Your task to perform on an android device: change the clock style Image 0: 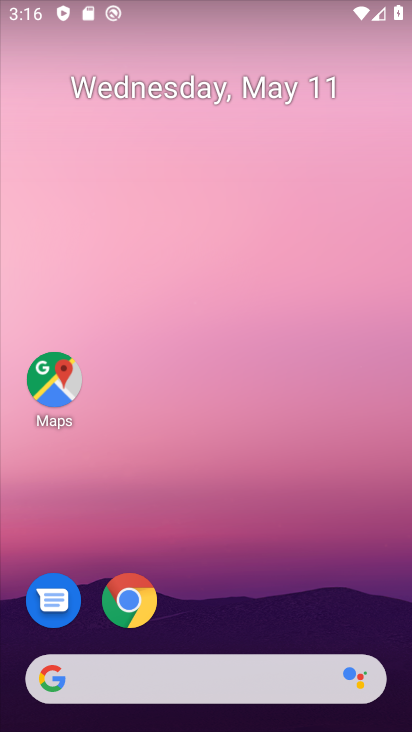
Step 0: drag from (325, 617) to (376, 3)
Your task to perform on an android device: change the clock style Image 1: 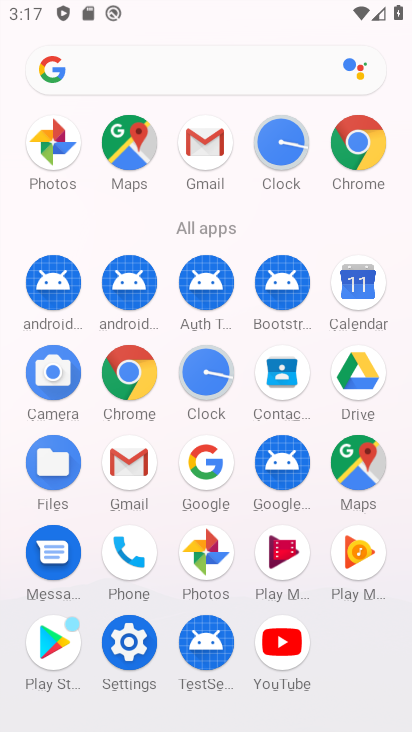
Step 1: click (272, 149)
Your task to perform on an android device: change the clock style Image 2: 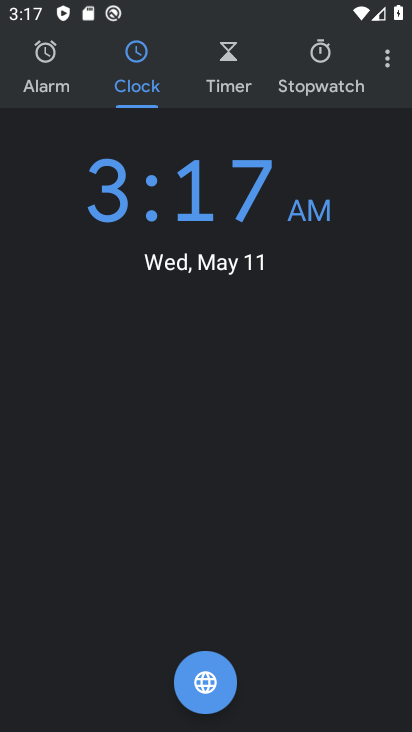
Step 2: click (385, 58)
Your task to perform on an android device: change the clock style Image 3: 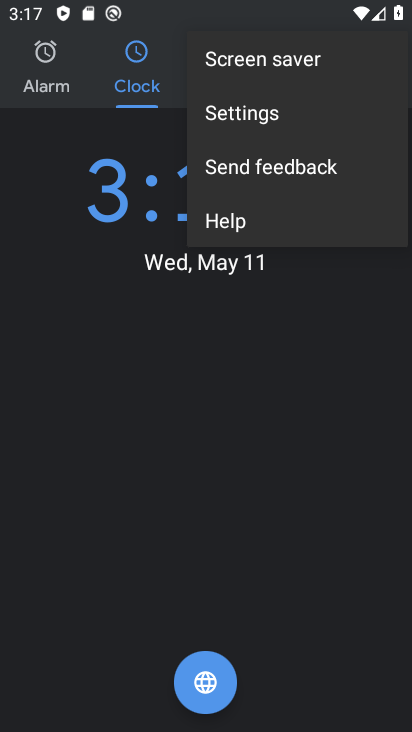
Step 3: click (280, 113)
Your task to perform on an android device: change the clock style Image 4: 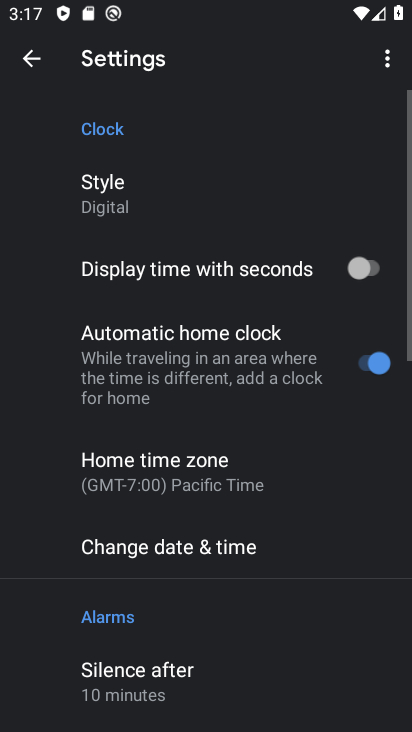
Step 4: click (109, 209)
Your task to perform on an android device: change the clock style Image 5: 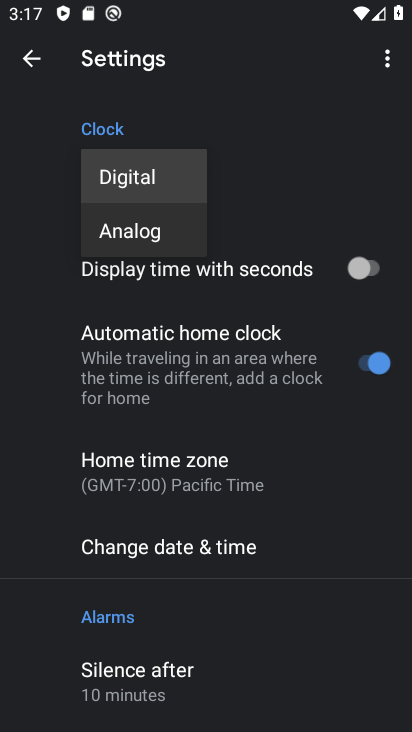
Step 5: click (152, 241)
Your task to perform on an android device: change the clock style Image 6: 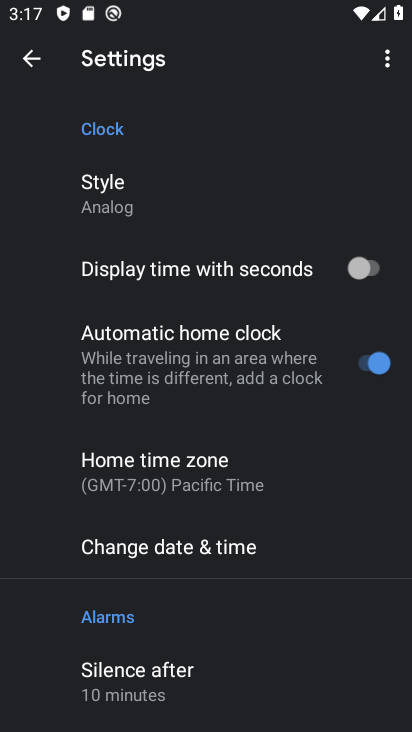
Step 6: task complete